Your task to perform on an android device: read, delete, or share a saved page in the chrome app Image 0: 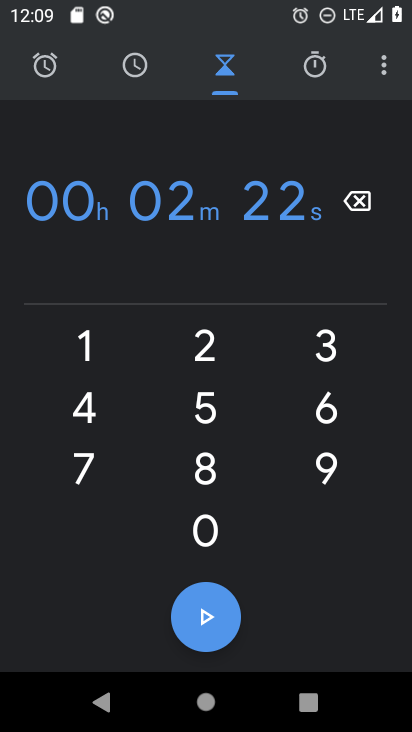
Step 0: press home button
Your task to perform on an android device: read, delete, or share a saved page in the chrome app Image 1: 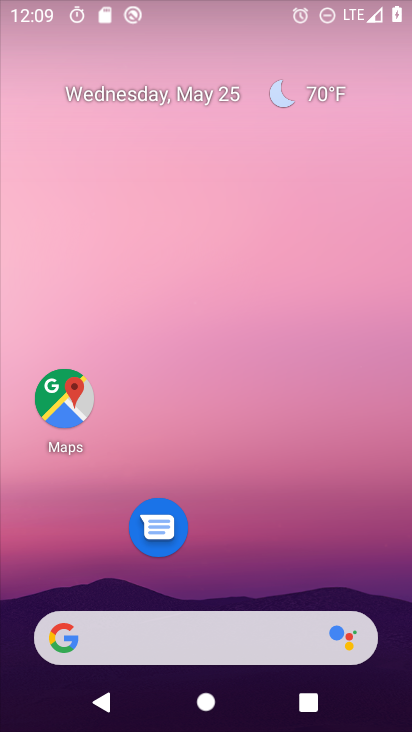
Step 1: drag from (234, 546) to (282, 99)
Your task to perform on an android device: read, delete, or share a saved page in the chrome app Image 2: 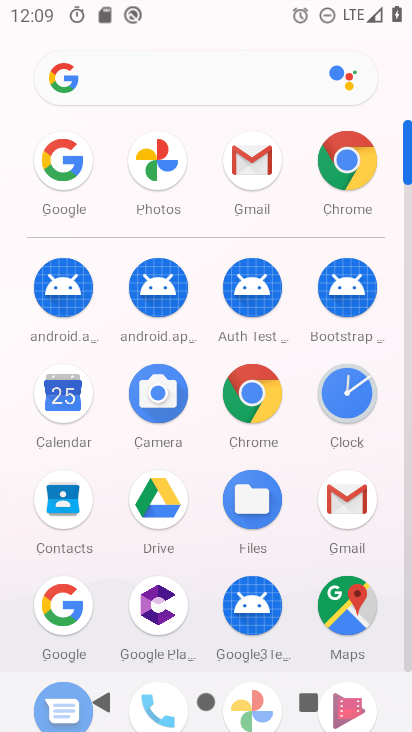
Step 2: click (351, 168)
Your task to perform on an android device: read, delete, or share a saved page in the chrome app Image 3: 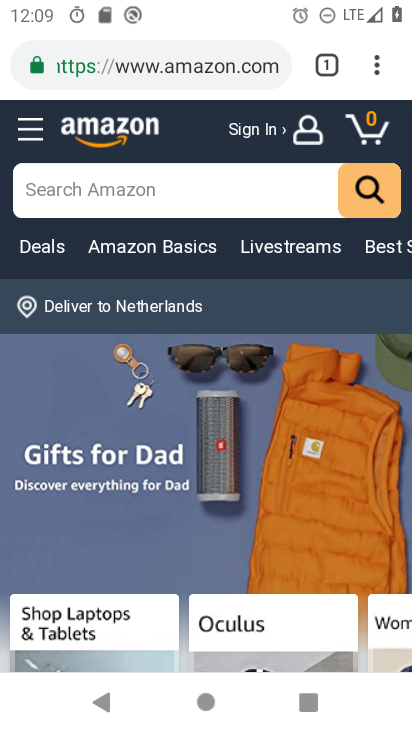
Step 3: click (372, 63)
Your task to perform on an android device: read, delete, or share a saved page in the chrome app Image 4: 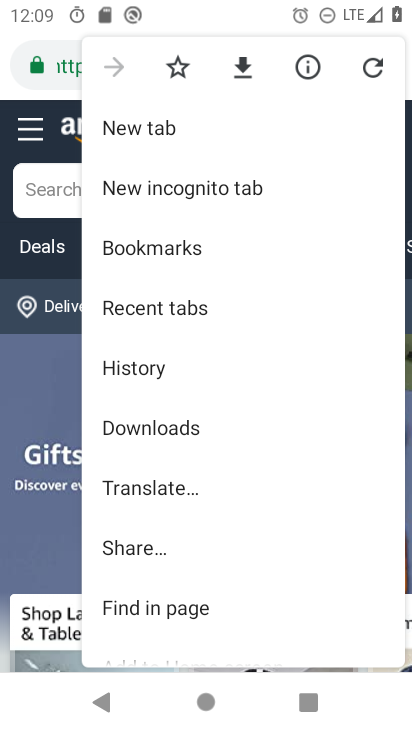
Step 4: click (190, 432)
Your task to perform on an android device: read, delete, or share a saved page in the chrome app Image 5: 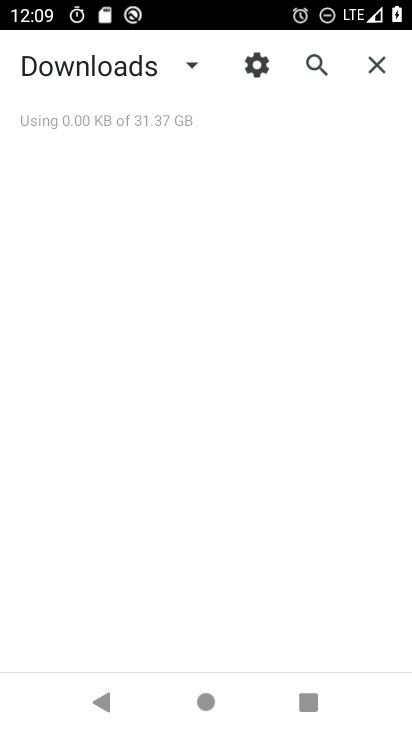
Step 5: task complete